Your task to perform on an android device: turn off picture-in-picture Image 0: 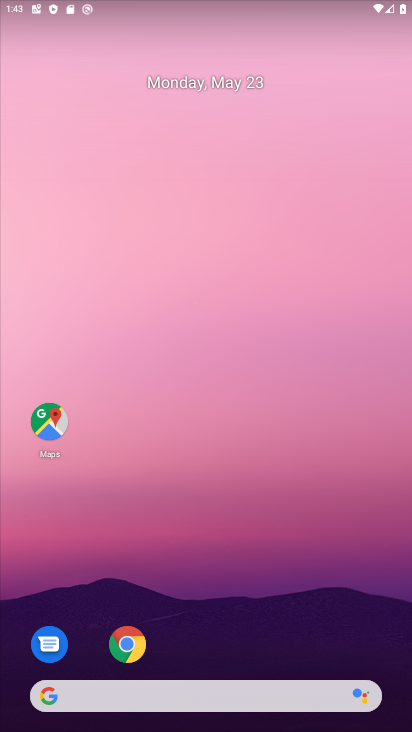
Step 0: drag from (269, 560) to (257, 4)
Your task to perform on an android device: turn off picture-in-picture Image 1: 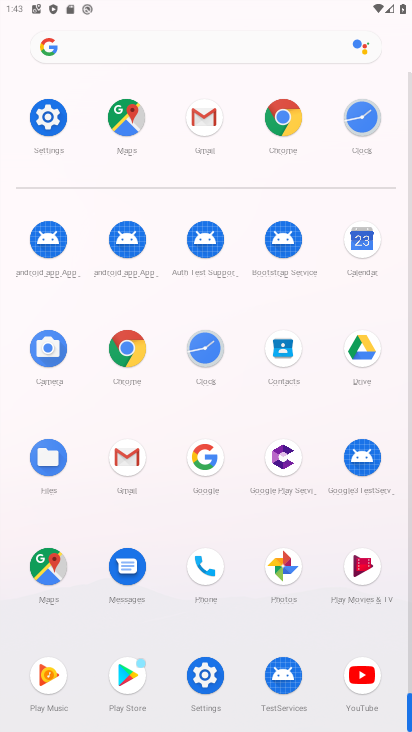
Step 1: drag from (6, 604) to (8, 336)
Your task to perform on an android device: turn off picture-in-picture Image 2: 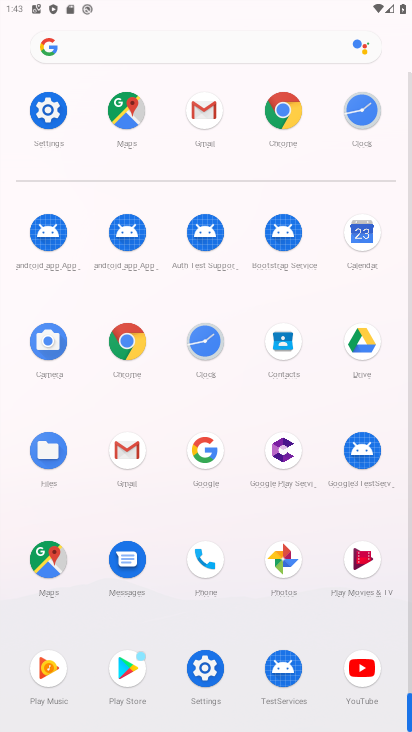
Step 2: click (205, 667)
Your task to perform on an android device: turn off picture-in-picture Image 3: 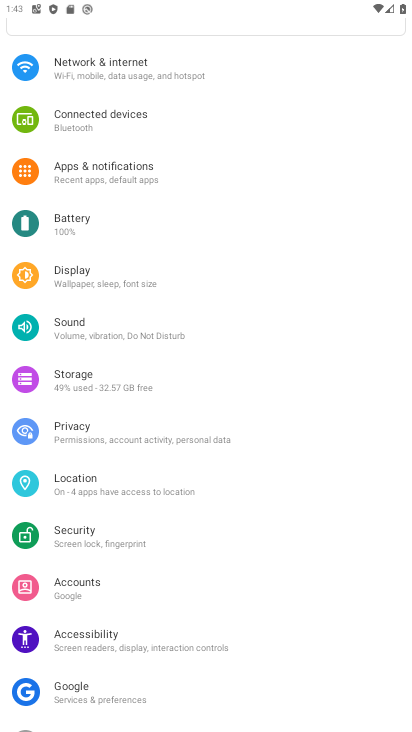
Step 3: drag from (225, 601) to (228, 166)
Your task to perform on an android device: turn off picture-in-picture Image 4: 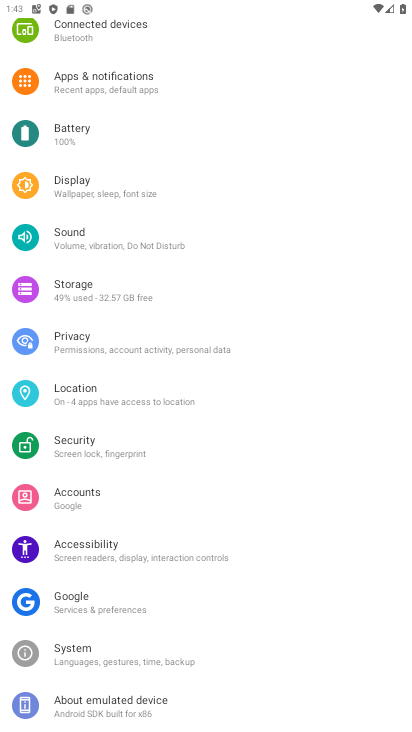
Step 4: drag from (153, 107) to (186, 545)
Your task to perform on an android device: turn off picture-in-picture Image 5: 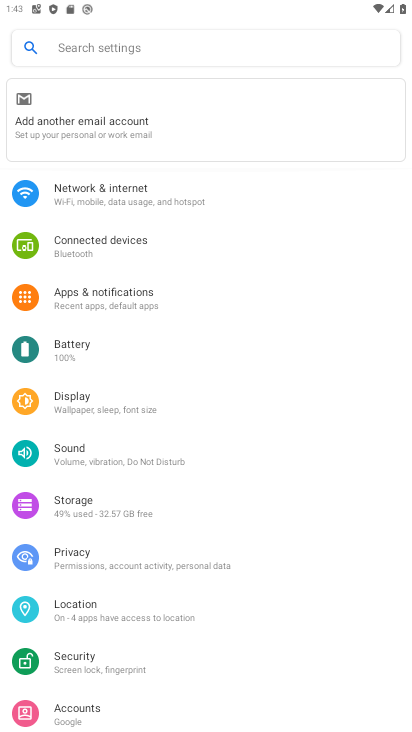
Step 5: click (131, 280)
Your task to perform on an android device: turn off picture-in-picture Image 6: 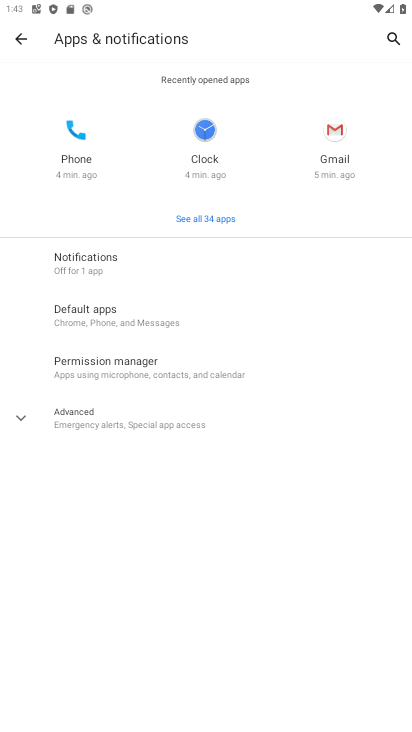
Step 6: click (153, 422)
Your task to perform on an android device: turn off picture-in-picture Image 7: 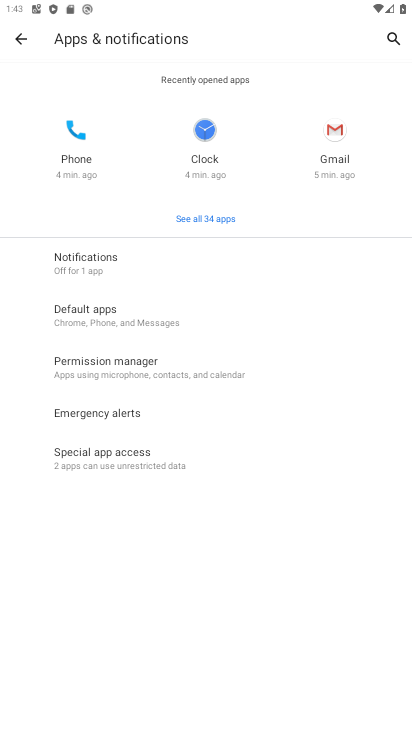
Step 7: click (143, 459)
Your task to perform on an android device: turn off picture-in-picture Image 8: 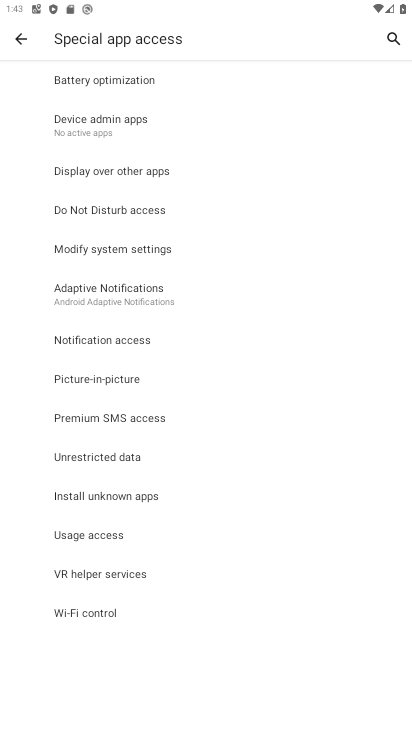
Step 8: click (117, 377)
Your task to perform on an android device: turn off picture-in-picture Image 9: 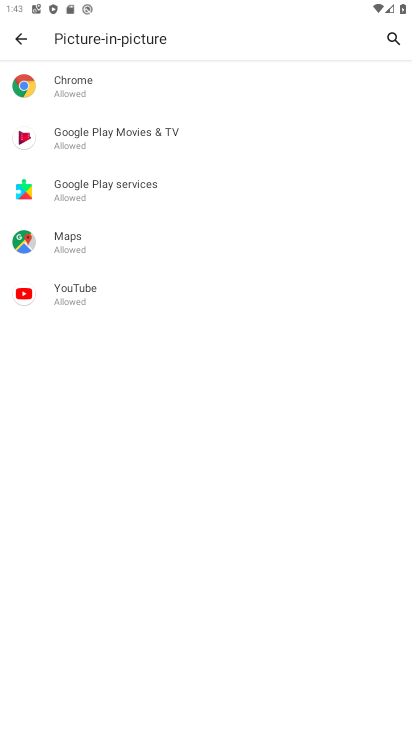
Step 9: click (107, 92)
Your task to perform on an android device: turn off picture-in-picture Image 10: 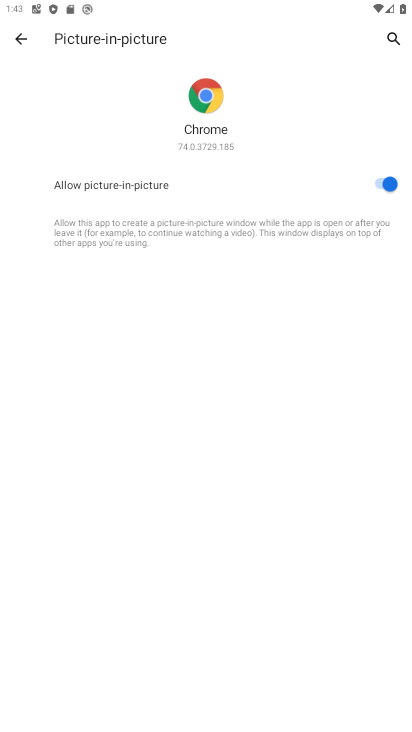
Step 10: click (371, 180)
Your task to perform on an android device: turn off picture-in-picture Image 11: 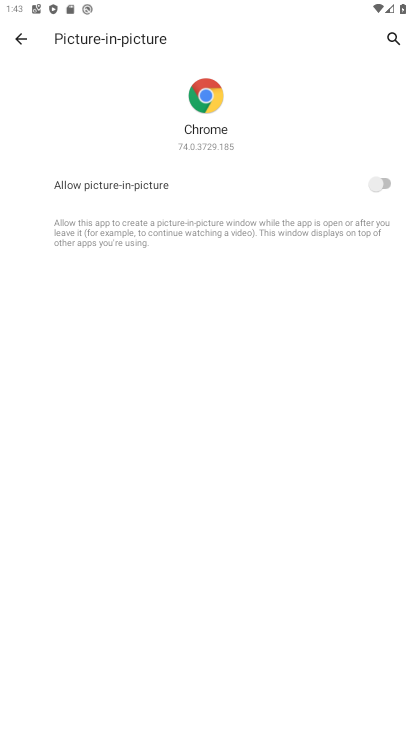
Step 11: click (16, 37)
Your task to perform on an android device: turn off picture-in-picture Image 12: 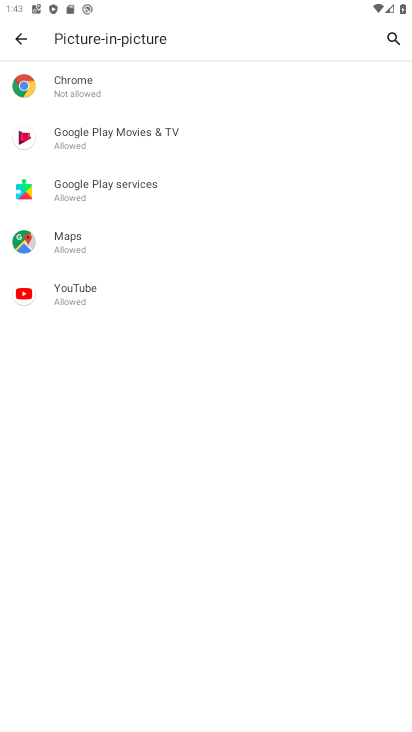
Step 12: click (101, 136)
Your task to perform on an android device: turn off picture-in-picture Image 13: 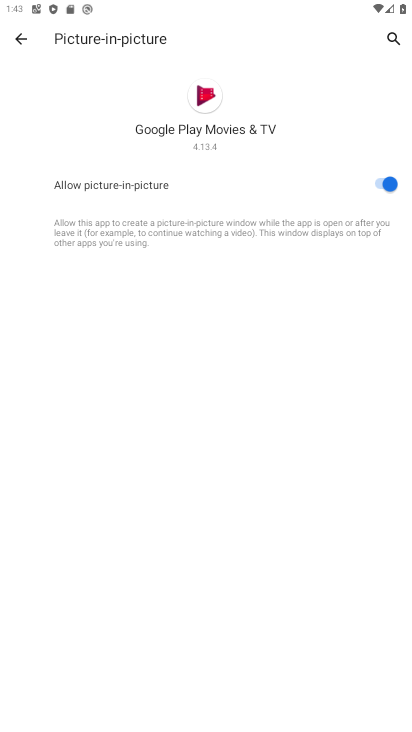
Step 13: click (388, 183)
Your task to perform on an android device: turn off picture-in-picture Image 14: 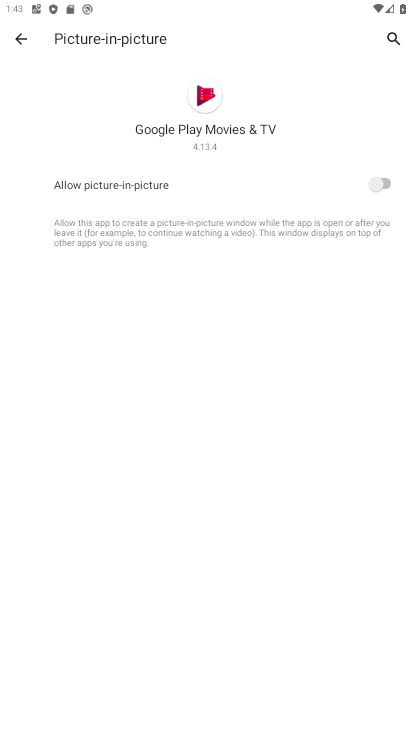
Step 14: click (26, 32)
Your task to perform on an android device: turn off picture-in-picture Image 15: 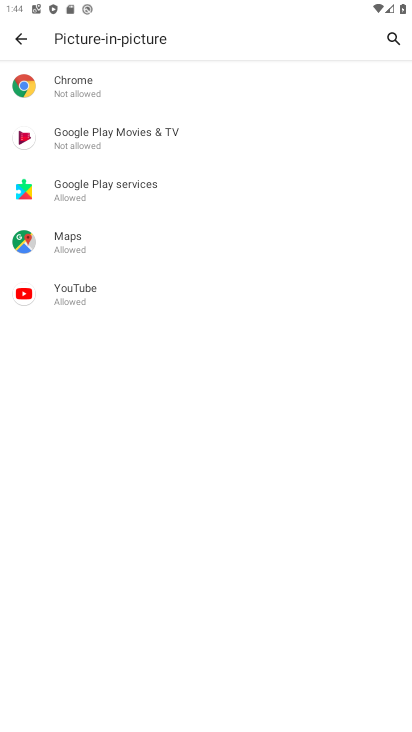
Step 15: click (103, 178)
Your task to perform on an android device: turn off picture-in-picture Image 16: 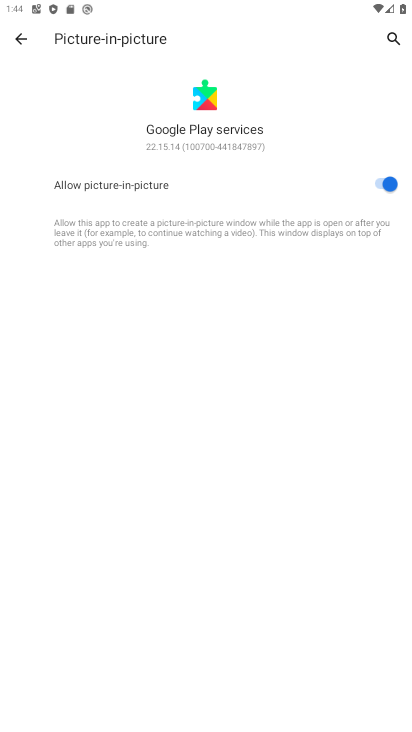
Step 16: click (381, 177)
Your task to perform on an android device: turn off picture-in-picture Image 17: 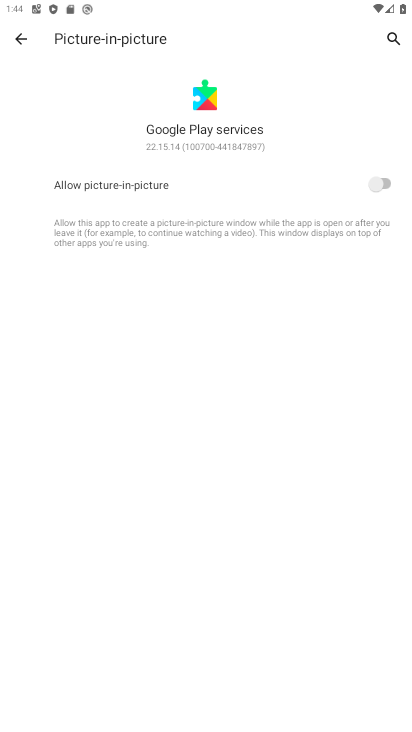
Step 17: click (20, 33)
Your task to perform on an android device: turn off picture-in-picture Image 18: 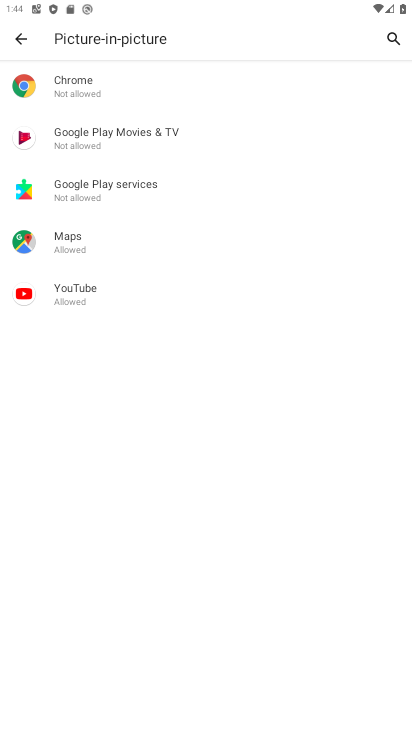
Step 18: click (89, 241)
Your task to perform on an android device: turn off picture-in-picture Image 19: 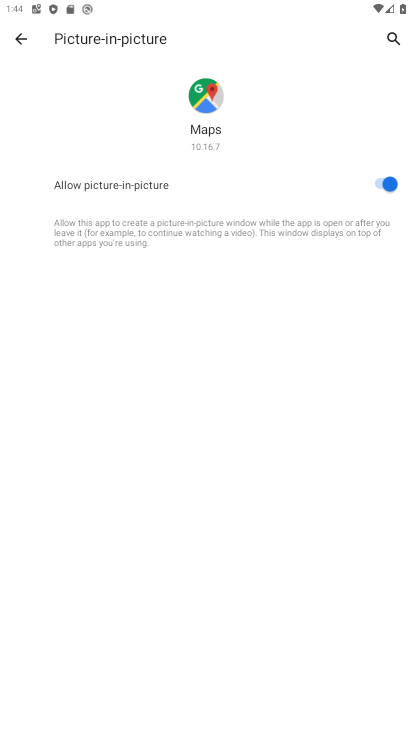
Step 19: click (380, 181)
Your task to perform on an android device: turn off picture-in-picture Image 20: 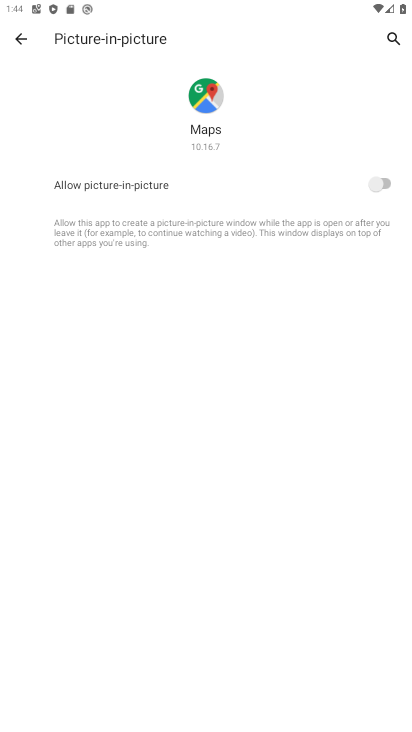
Step 20: click (18, 41)
Your task to perform on an android device: turn off picture-in-picture Image 21: 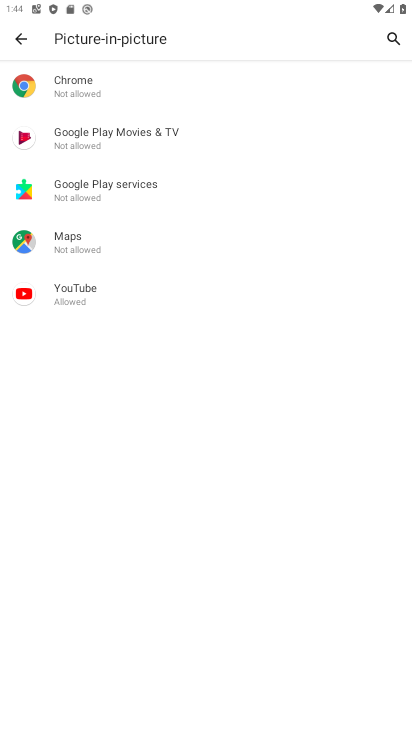
Step 21: click (76, 314)
Your task to perform on an android device: turn off picture-in-picture Image 22: 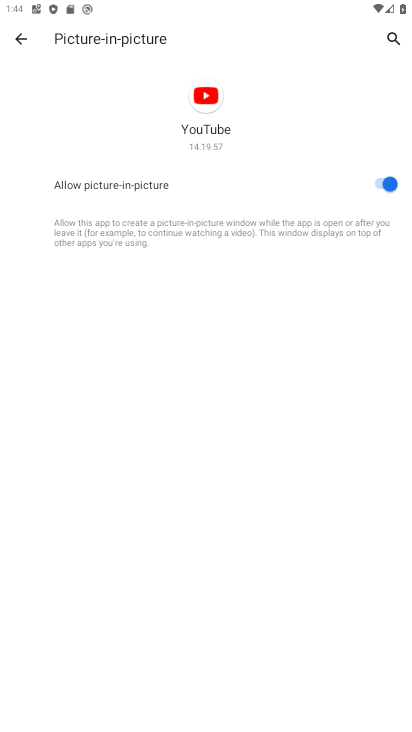
Step 22: click (382, 186)
Your task to perform on an android device: turn off picture-in-picture Image 23: 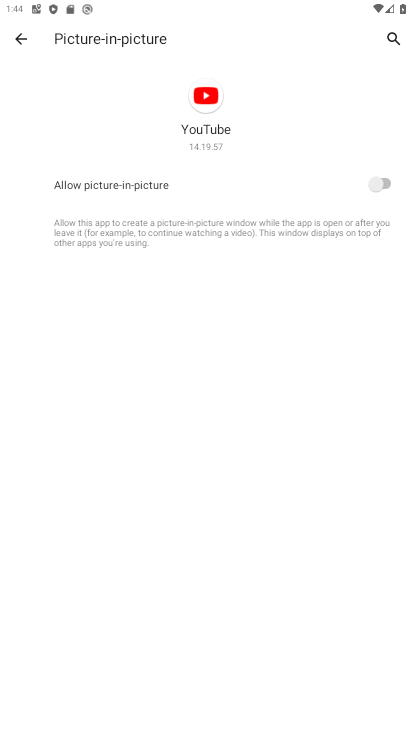
Step 23: click (30, 38)
Your task to perform on an android device: turn off picture-in-picture Image 24: 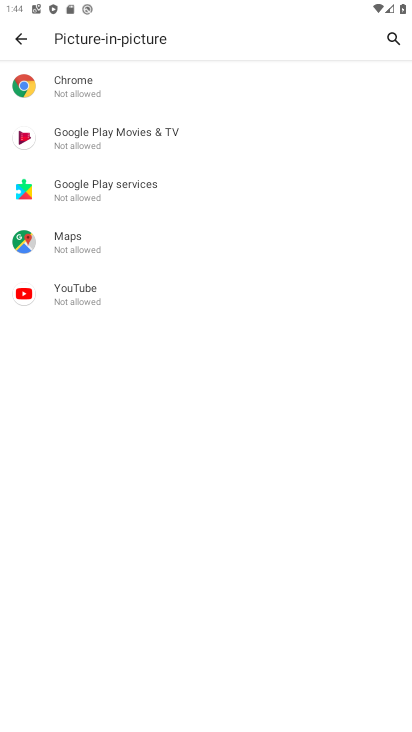
Step 24: task complete